Your task to perform on an android device: Search for Mexican restaurants on Maps Image 0: 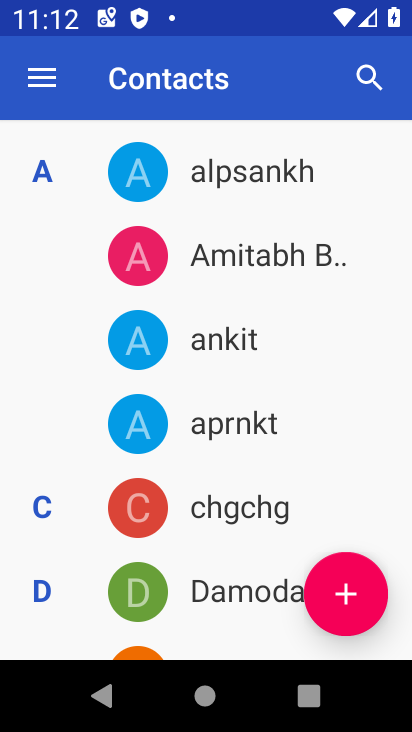
Step 0: press home button
Your task to perform on an android device: Search for Mexican restaurants on Maps Image 1: 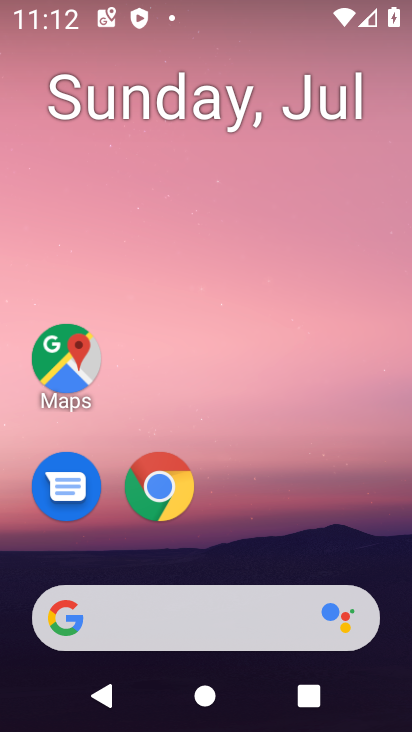
Step 1: drag from (382, 566) to (346, 135)
Your task to perform on an android device: Search for Mexican restaurants on Maps Image 2: 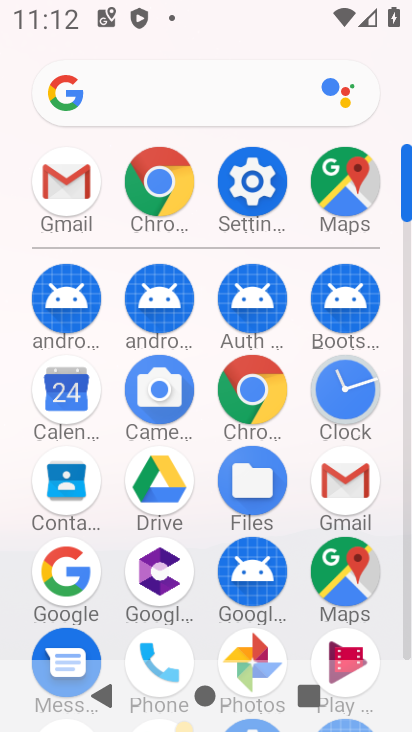
Step 2: click (349, 569)
Your task to perform on an android device: Search for Mexican restaurants on Maps Image 3: 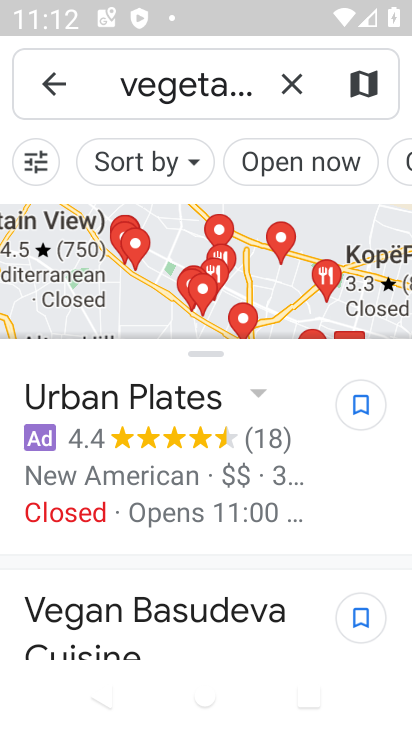
Step 3: press back button
Your task to perform on an android device: Search for Mexican restaurants on Maps Image 4: 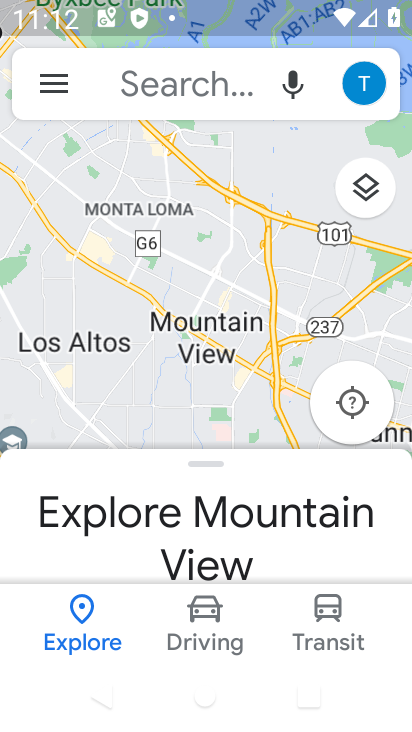
Step 4: click (238, 96)
Your task to perform on an android device: Search for Mexican restaurants on Maps Image 5: 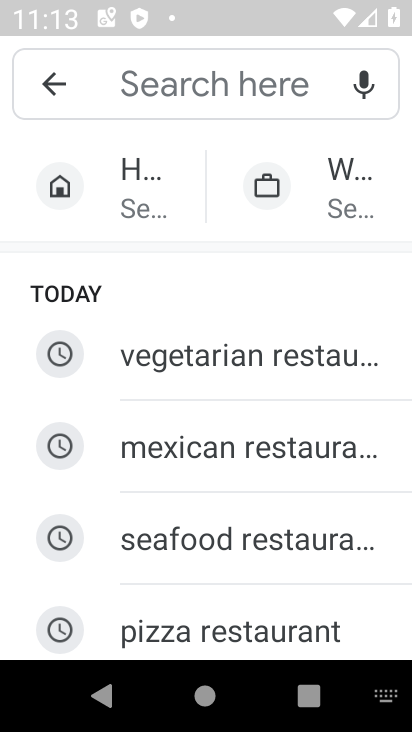
Step 5: type "mexcian restaurants"
Your task to perform on an android device: Search for Mexican restaurants on Maps Image 6: 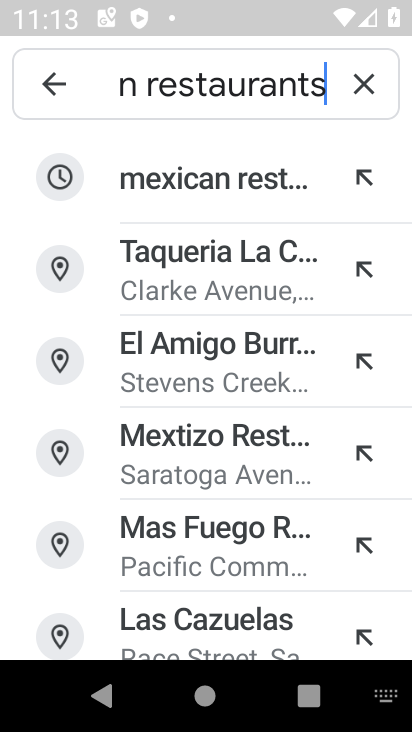
Step 6: click (206, 175)
Your task to perform on an android device: Search for Mexican restaurants on Maps Image 7: 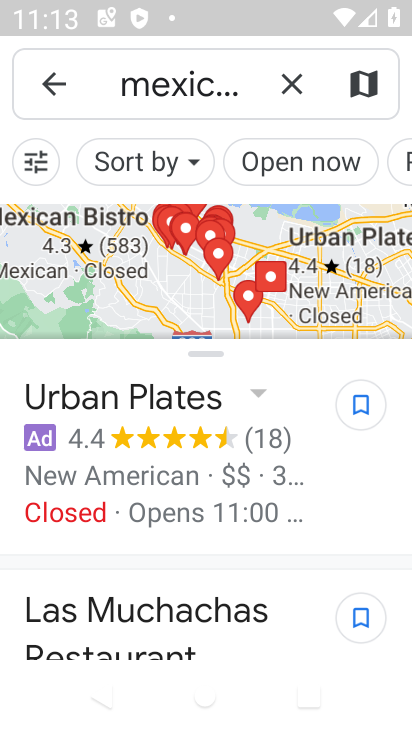
Step 7: task complete